Your task to perform on an android device: What's the weather? Image 0: 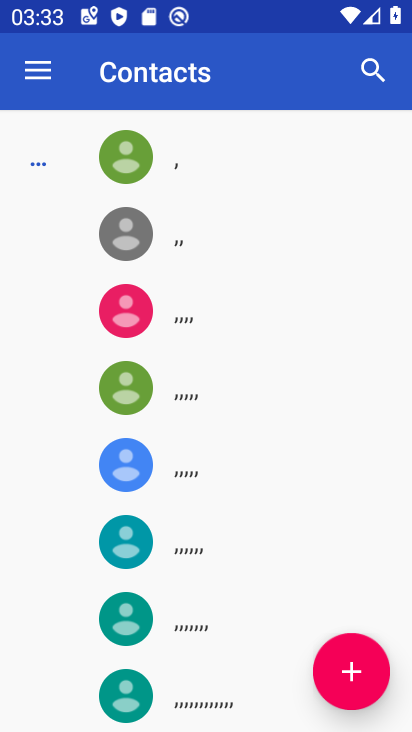
Step 0: press back button
Your task to perform on an android device: What's the weather? Image 1: 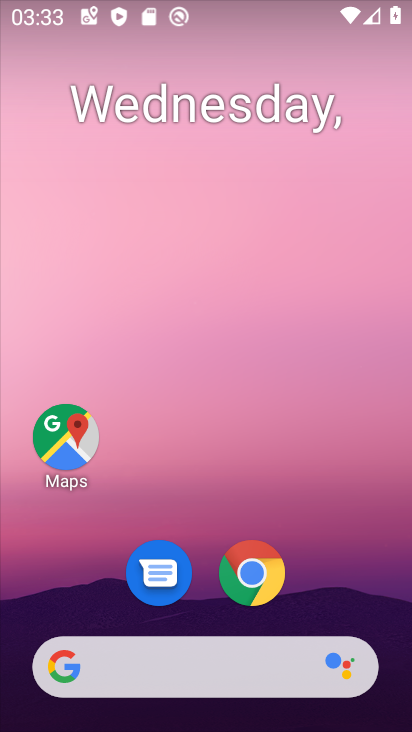
Step 1: drag from (332, 577) to (237, 58)
Your task to perform on an android device: What's the weather? Image 2: 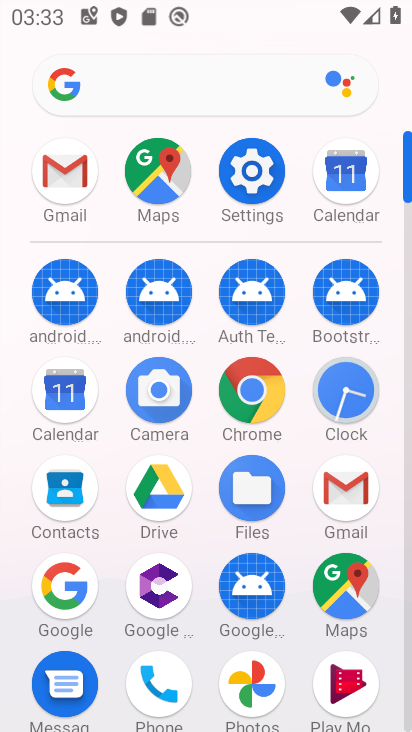
Step 2: click (57, 585)
Your task to perform on an android device: What's the weather? Image 3: 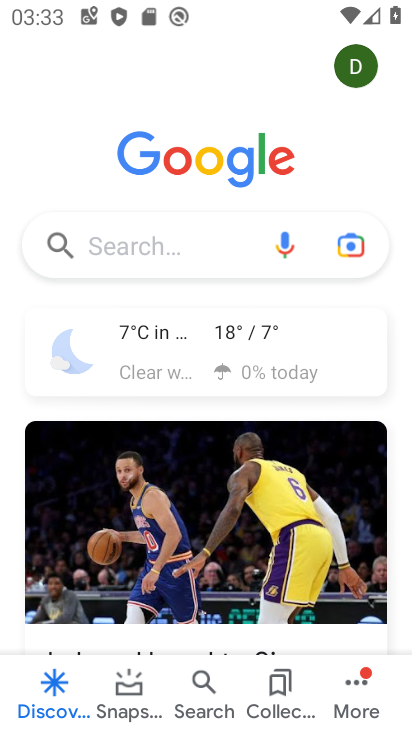
Step 3: click (154, 351)
Your task to perform on an android device: What's the weather? Image 4: 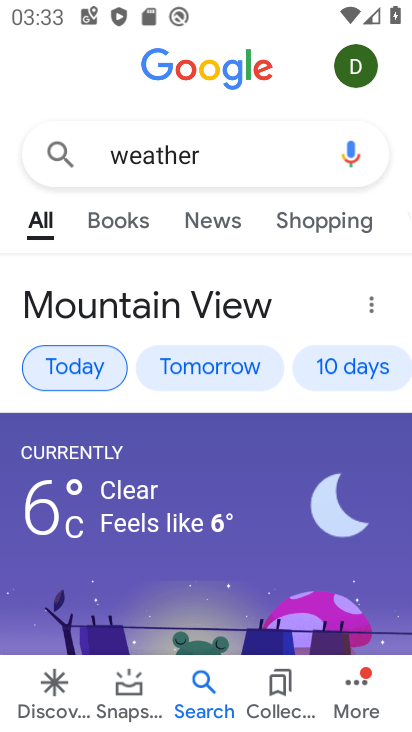
Step 4: task complete